Your task to perform on an android device: find which apps use the phone's location Image 0: 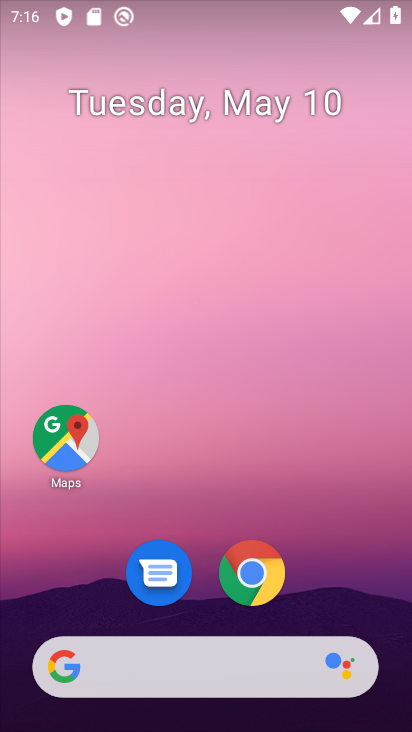
Step 0: drag from (358, 526) to (342, 152)
Your task to perform on an android device: find which apps use the phone's location Image 1: 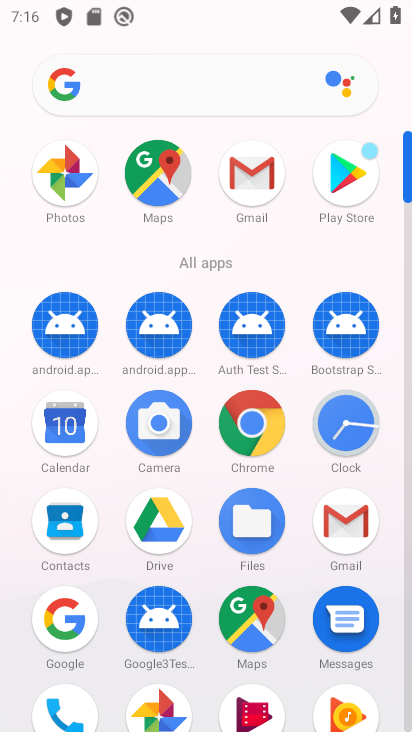
Step 1: drag from (286, 479) to (293, 214)
Your task to perform on an android device: find which apps use the phone's location Image 2: 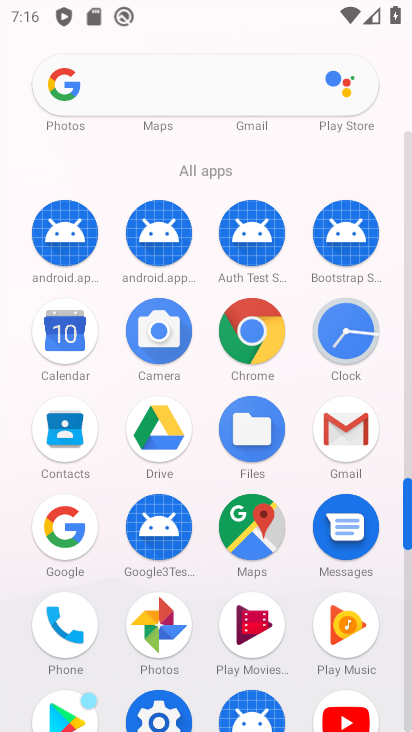
Step 2: drag from (201, 669) to (201, 313)
Your task to perform on an android device: find which apps use the phone's location Image 3: 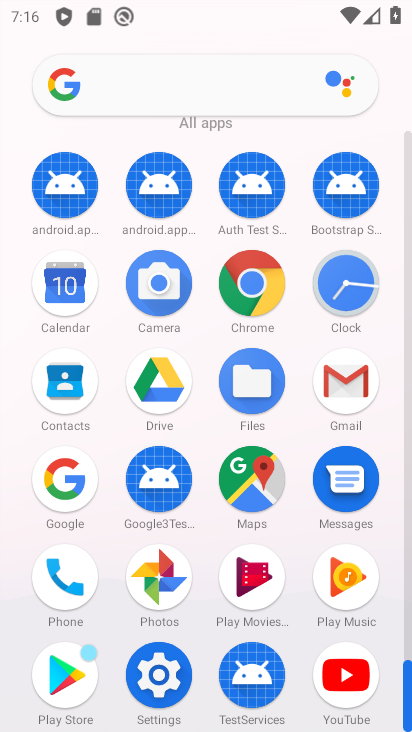
Step 3: click (159, 655)
Your task to perform on an android device: find which apps use the phone's location Image 4: 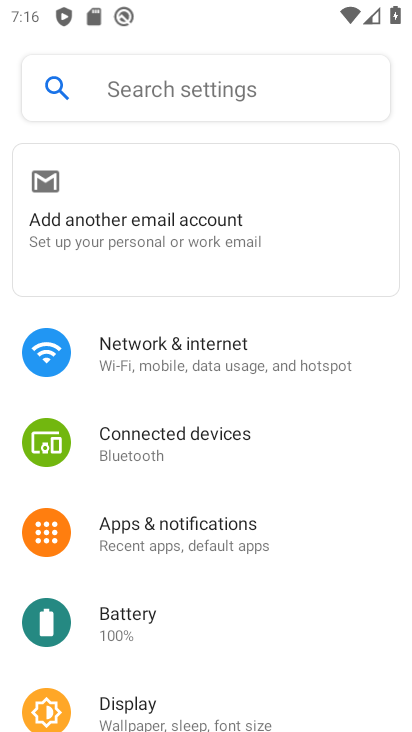
Step 4: drag from (334, 614) to (336, 322)
Your task to perform on an android device: find which apps use the phone's location Image 5: 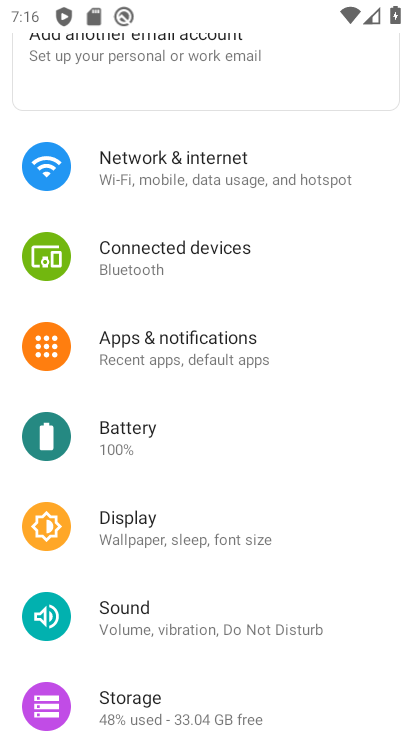
Step 5: drag from (337, 597) to (336, 273)
Your task to perform on an android device: find which apps use the phone's location Image 6: 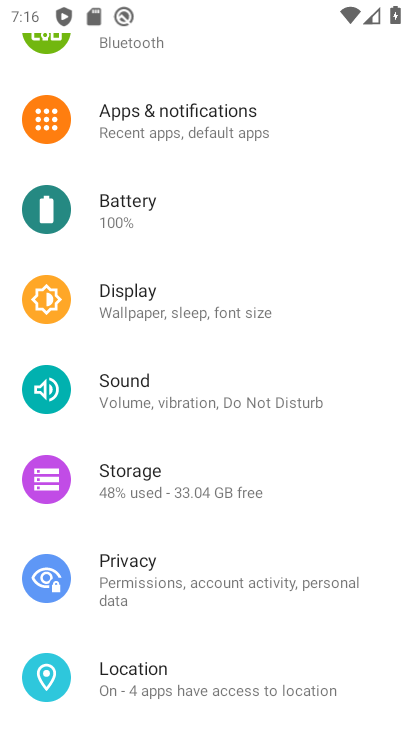
Step 6: drag from (321, 621) to (317, 268)
Your task to perform on an android device: find which apps use the phone's location Image 7: 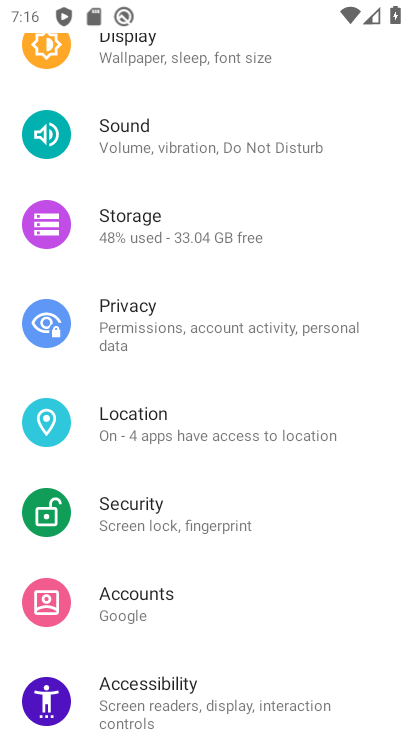
Step 7: click (194, 416)
Your task to perform on an android device: find which apps use the phone's location Image 8: 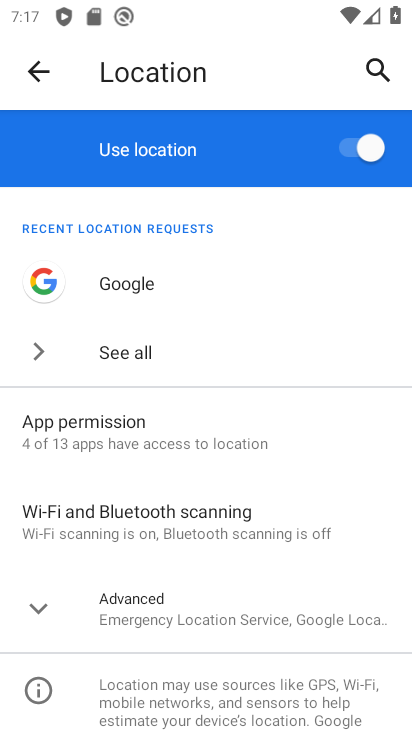
Step 8: click (40, 349)
Your task to perform on an android device: find which apps use the phone's location Image 9: 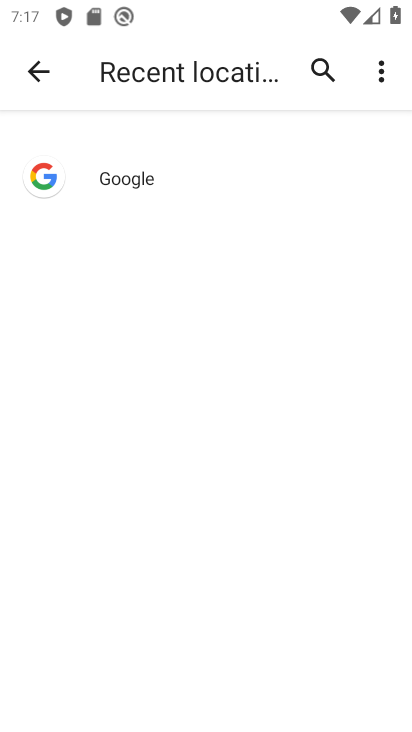
Step 9: task complete